Your task to perform on an android device: Go to settings Image 0: 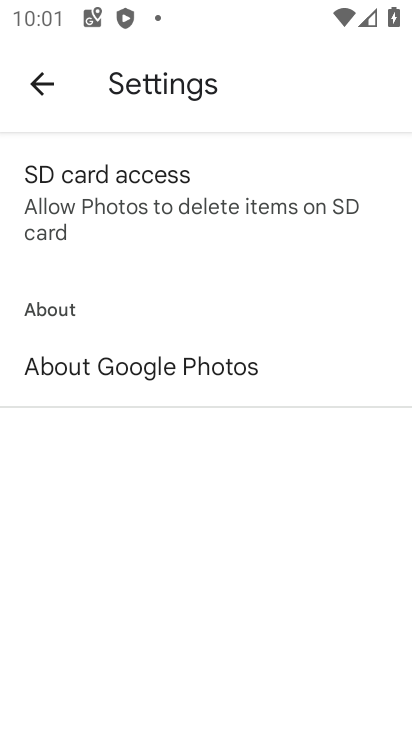
Step 0: press home button
Your task to perform on an android device: Go to settings Image 1: 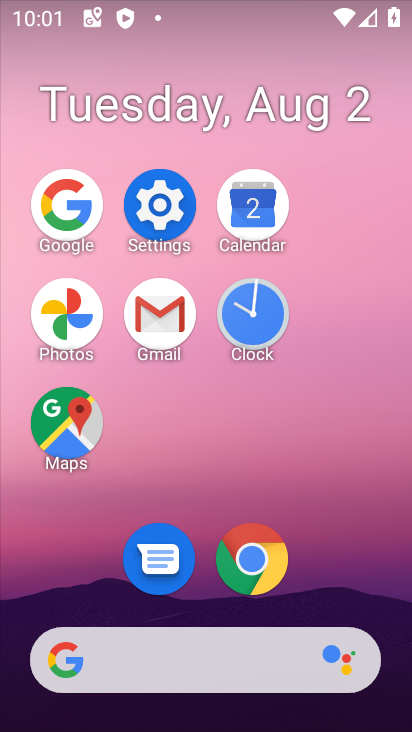
Step 1: click (150, 208)
Your task to perform on an android device: Go to settings Image 2: 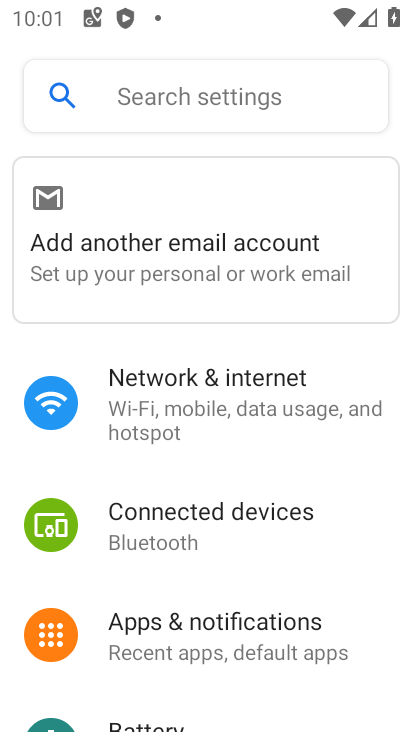
Step 2: task complete